Your task to perform on an android device: Open CNN.com Image 0: 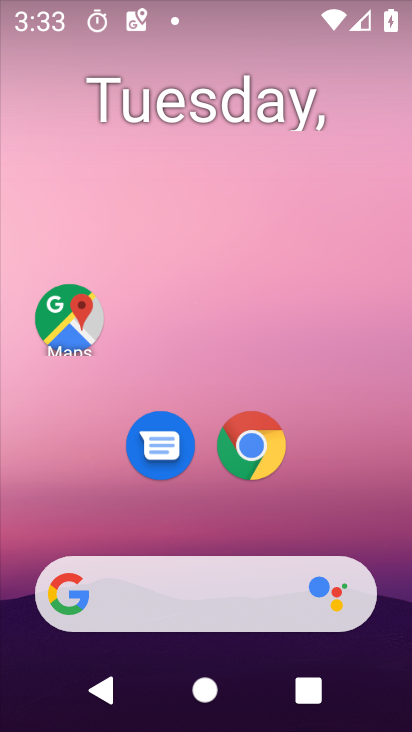
Step 0: click (249, 453)
Your task to perform on an android device: Open CNN.com Image 1: 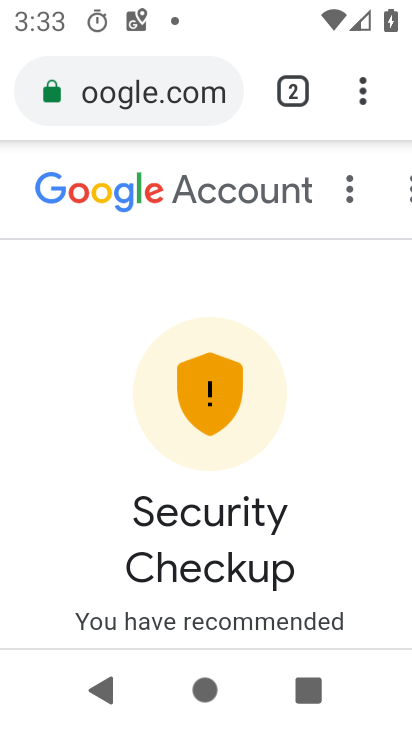
Step 1: click (305, 94)
Your task to perform on an android device: Open CNN.com Image 2: 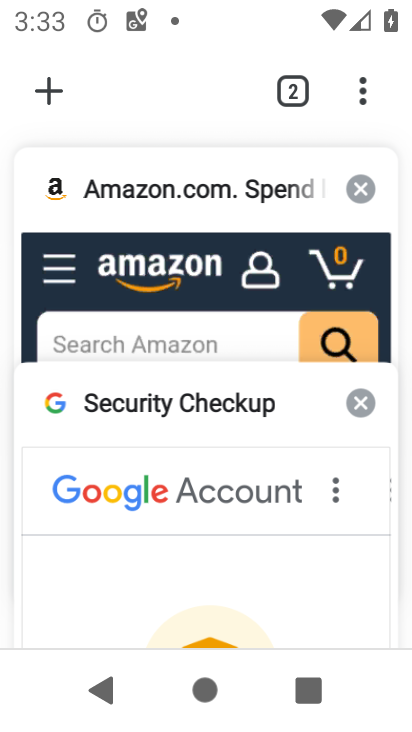
Step 2: click (40, 90)
Your task to perform on an android device: Open CNN.com Image 3: 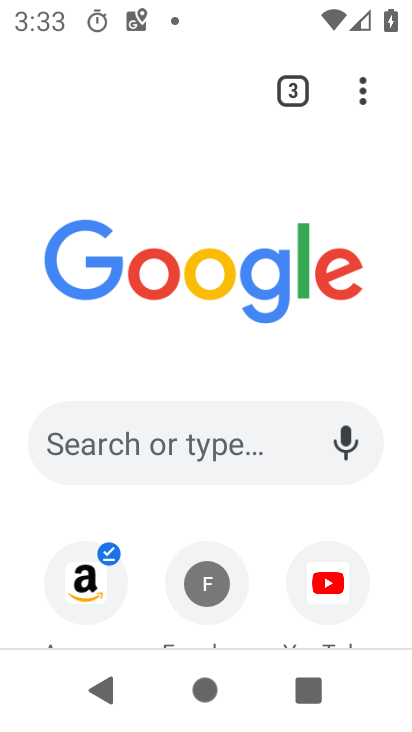
Step 3: drag from (161, 577) to (100, 202)
Your task to perform on an android device: Open CNN.com Image 4: 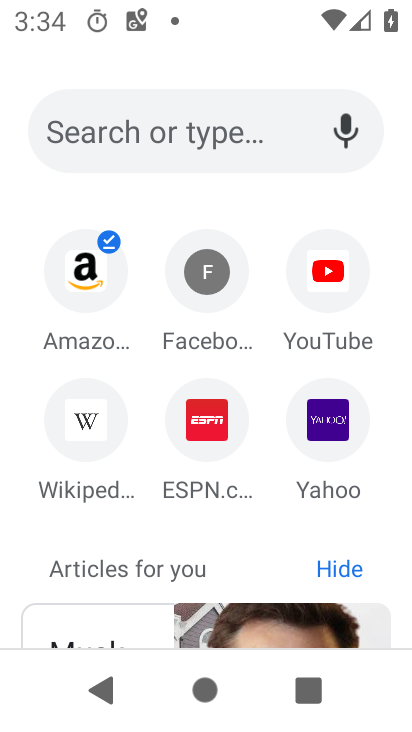
Step 4: click (168, 126)
Your task to perform on an android device: Open CNN.com Image 5: 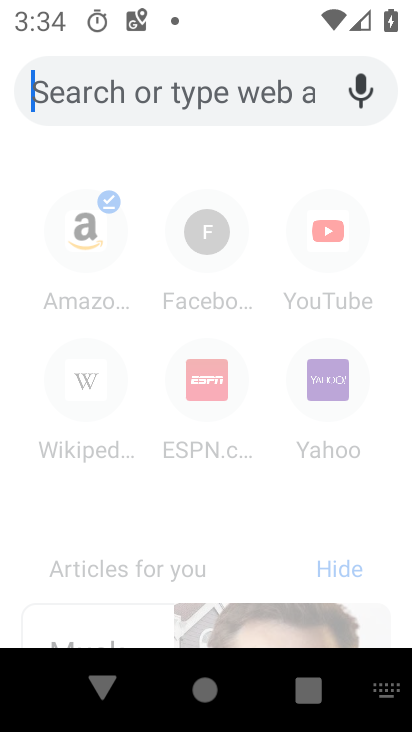
Step 5: type "cnn"
Your task to perform on an android device: Open CNN.com Image 6: 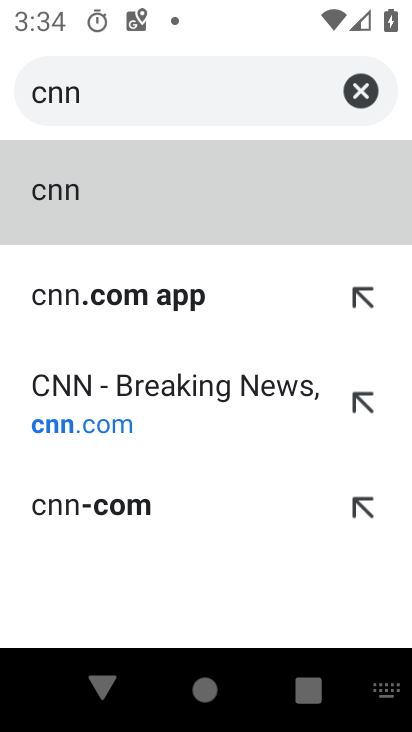
Step 6: click (103, 411)
Your task to perform on an android device: Open CNN.com Image 7: 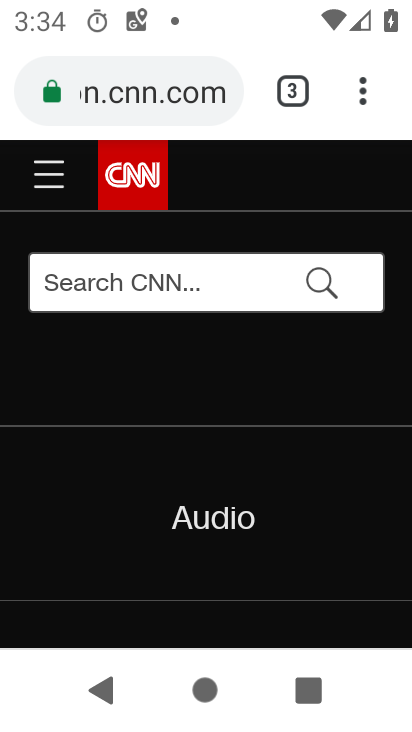
Step 7: task complete